Your task to perform on an android device: toggle airplane mode Image 0: 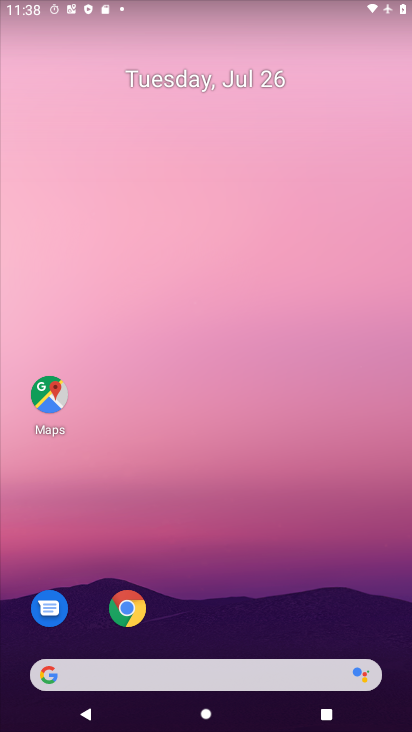
Step 0: drag from (178, 613) to (264, 93)
Your task to perform on an android device: toggle airplane mode Image 1: 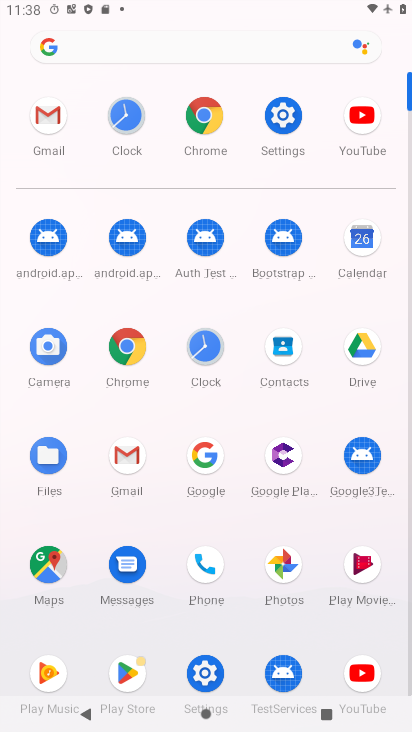
Step 1: click (262, 133)
Your task to perform on an android device: toggle airplane mode Image 2: 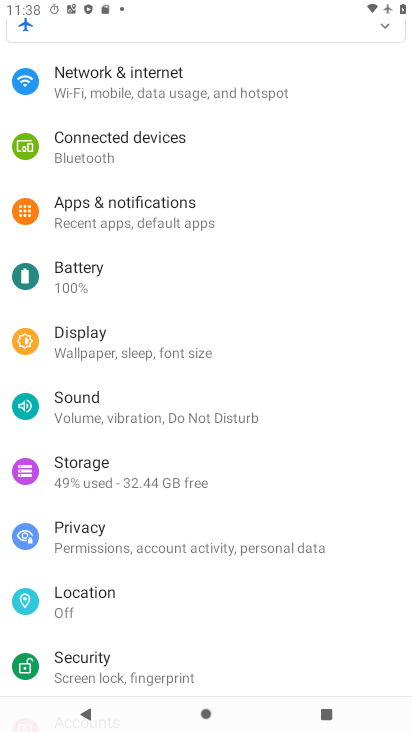
Step 2: click (190, 98)
Your task to perform on an android device: toggle airplane mode Image 3: 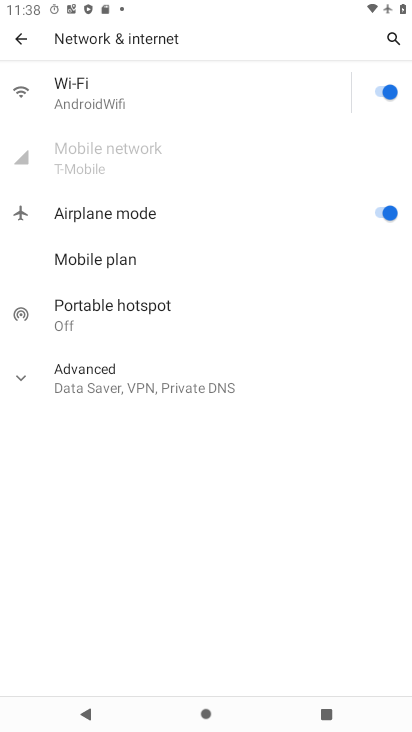
Step 3: click (373, 204)
Your task to perform on an android device: toggle airplane mode Image 4: 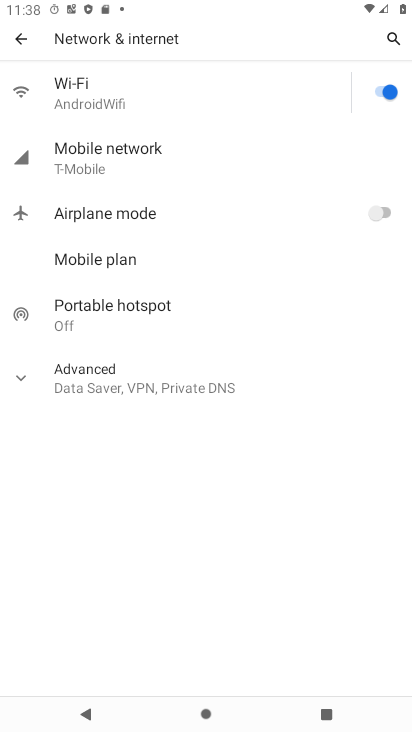
Step 4: task complete